Your task to perform on an android device: open app "Cash App" (install if not already installed) Image 0: 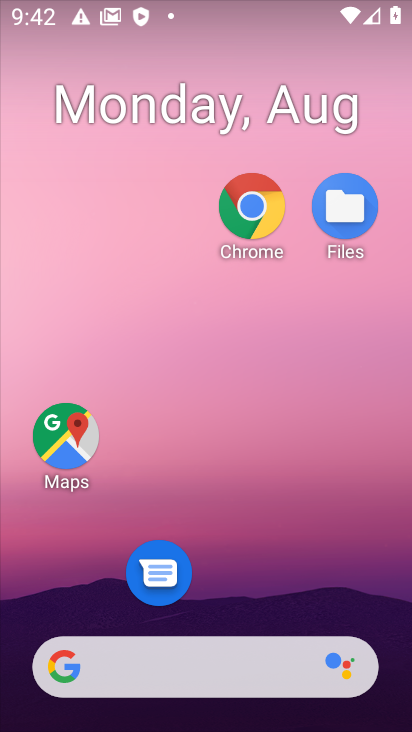
Step 0: drag from (227, 642) to (265, 22)
Your task to perform on an android device: open app "Cash App" (install if not already installed) Image 1: 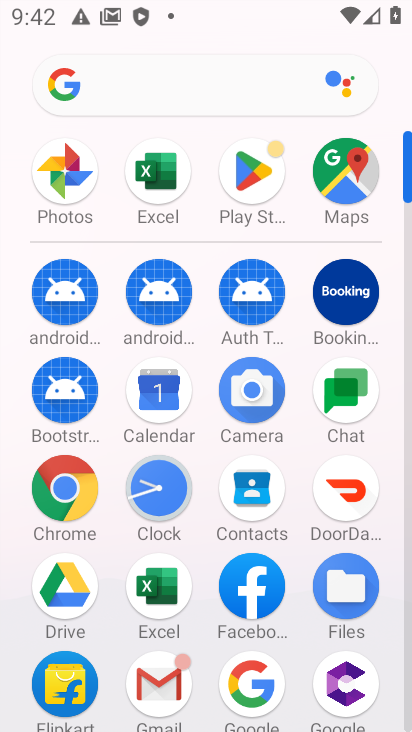
Step 1: click (257, 168)
Your task to perform on an android device: open app "Cash App" (install if not already installed) Image 2: 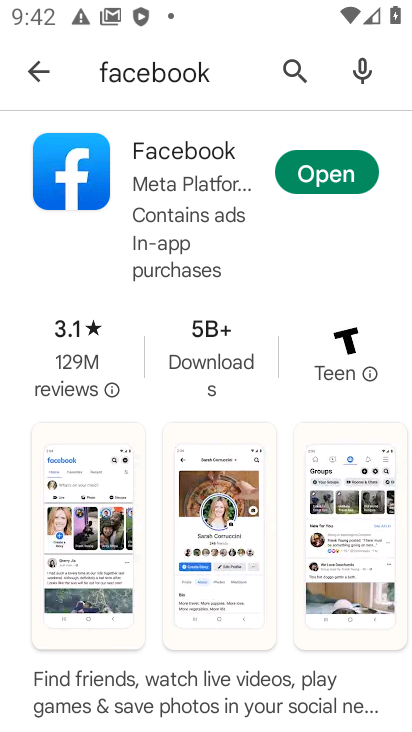
Step 2: click (289, 81)
Your task to perform on an android device: open app "Cash App" (install if not already installed) Image 3: 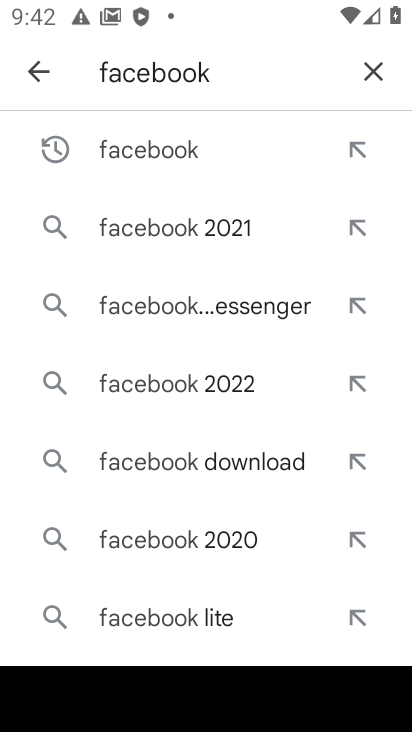
Step 3: click (369, 76)
Your task to perform on an android device: open app "Cash App" (install if not already installed) Image 4: 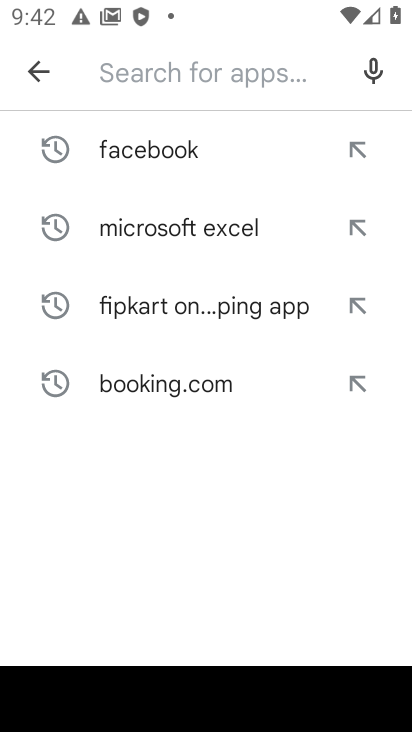
Step 4: type "cashapp"
Your task to perform on an android device: open app "Cash App" (install if not already installed) Image 5: 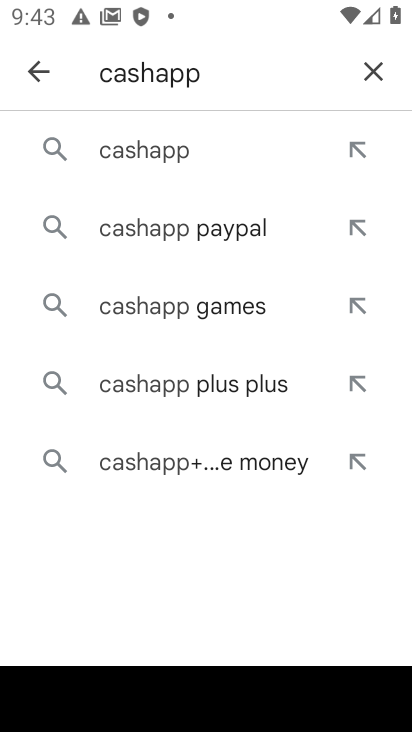
Step 5: click (169, 142)
Your task to perform on an android device: open app "Cash App" (install if not already installed) Image 6: 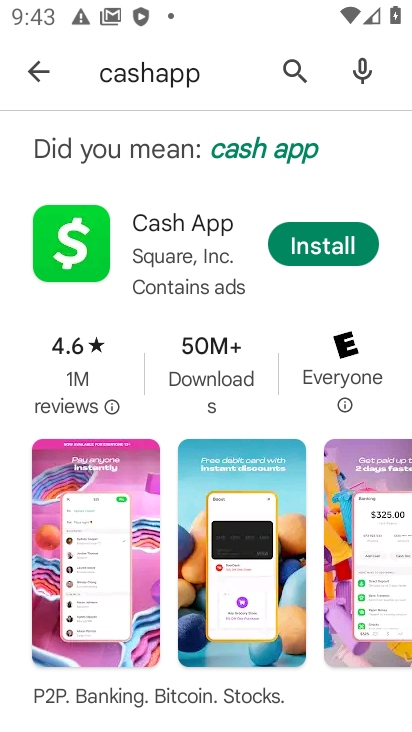
Step 6: click (331, 243)
Your task to perform on an android device: open app "Cash App" (install if not already installed) Image 7: 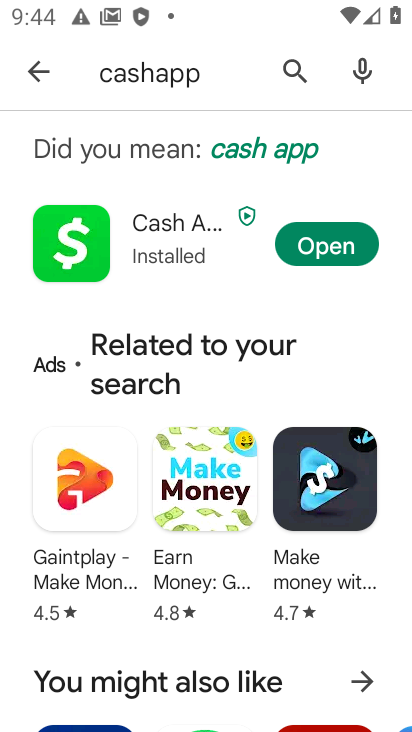
Step 7: task complete